Your task to perform on an android device: Is it going to rain today? Image 0: 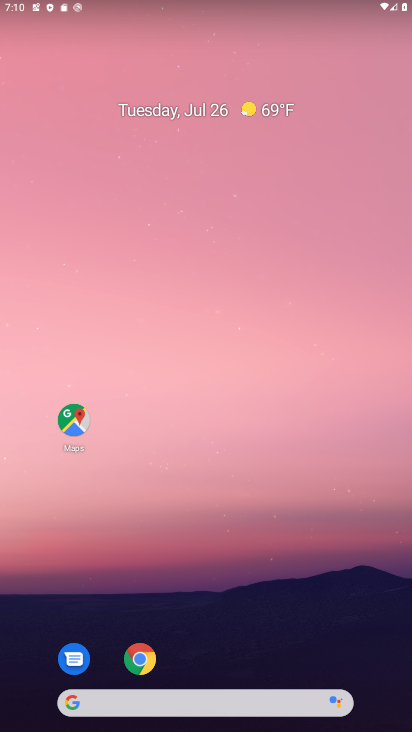
Step 0: click (200, 689)
Your task to perform on an android device: Is it going to rain today? Image 1: 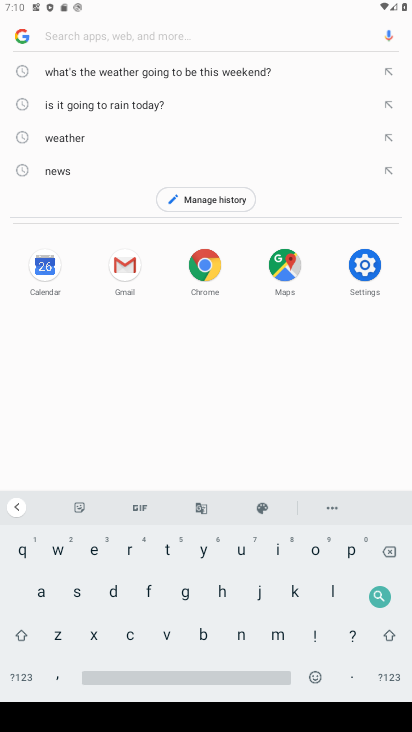
Step 1: click (69, 106)
Your task to perform on an android device: Is it going to rain today? Image 2: 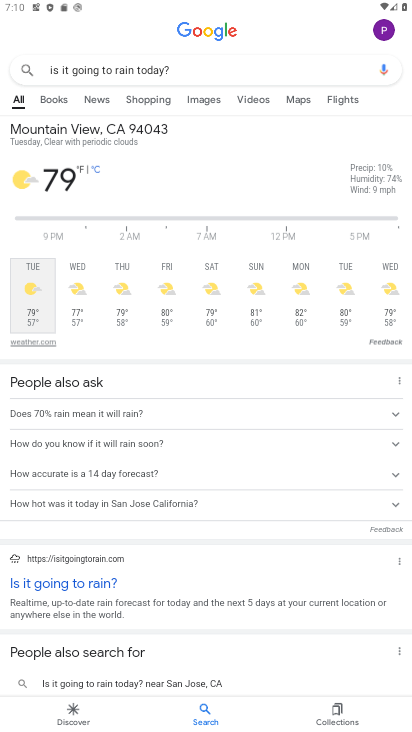
Step 2: task complete